Your task to perform on an android device: toggle javascript in the chrome app Image 0: 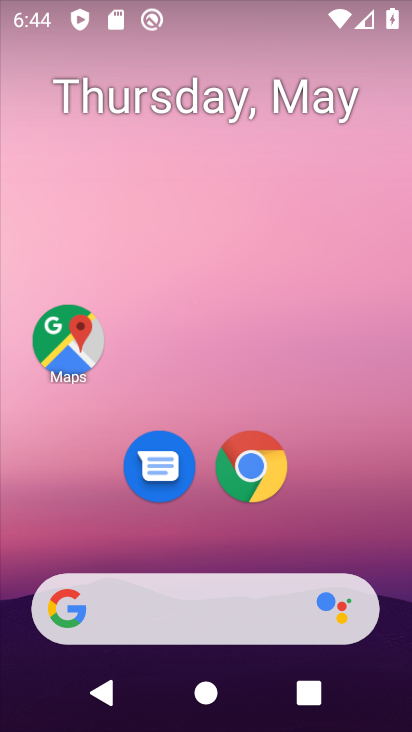
Step 0: click (257, 465)
Your task to perform on an android device: toggle javascript in the chrome app Image 1: 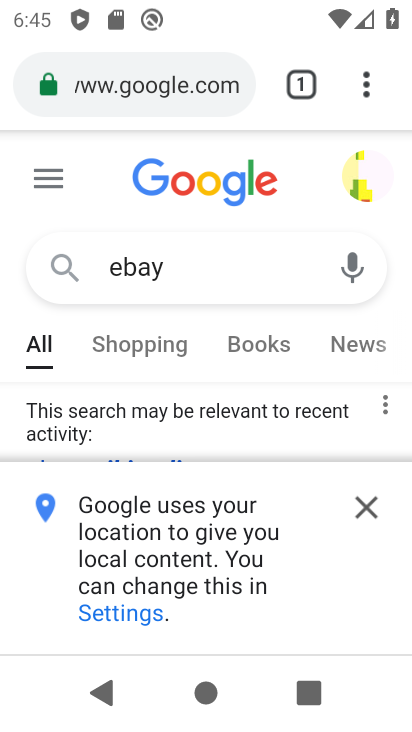
Step 1: click (367, 80)
Your task to perform on an android device: toggle javascript in the chrome app Image 2: 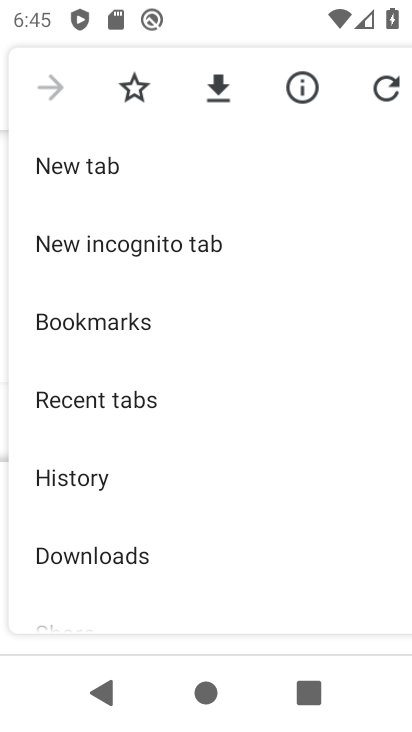
Step 2: drag from (214, 465) to (179, 222)
Your task to perform on an android device: toggle javascript in the chrome app Image 3: 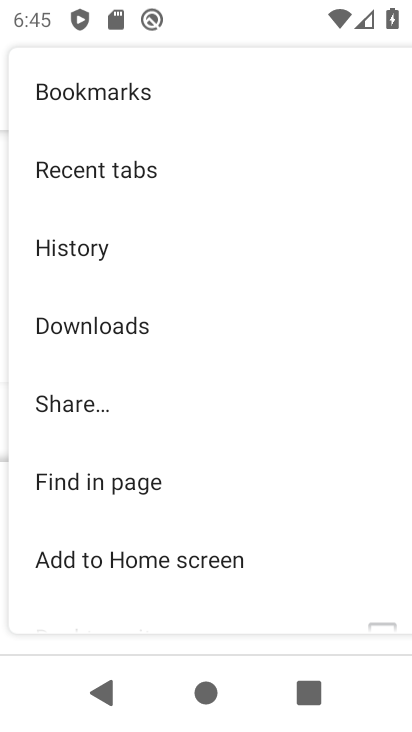
Step 3: drag from (225, 441) to (213, 245)
Your task to perform on an android device: toggle javascript in the chrome app Image 4: 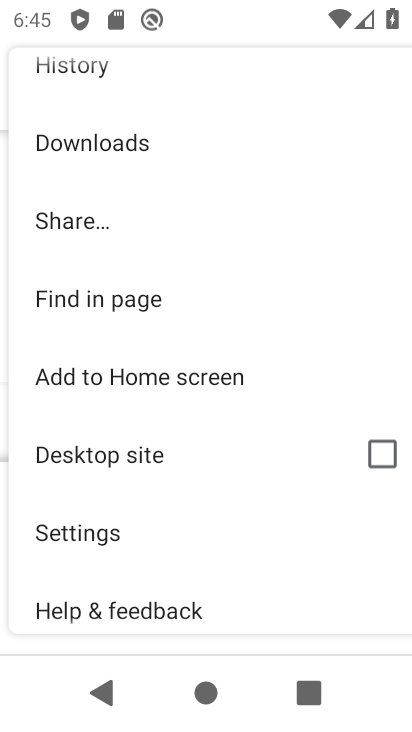
Step 4: click (89, 529)
Your task to perform on an android device: toggle javascript in the chrome app Image 5: 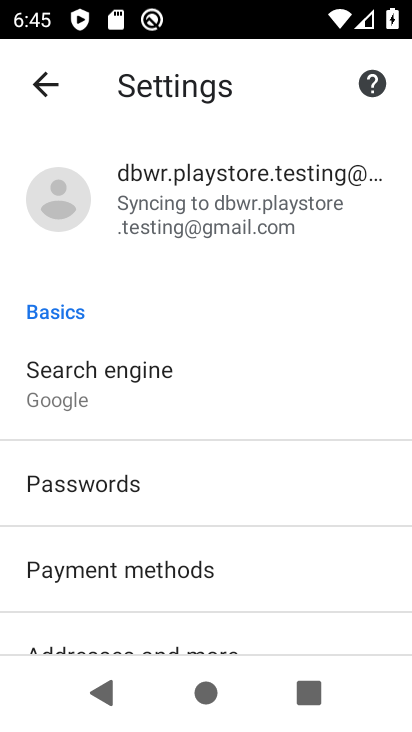
Step 5: drag from (293, 516) to (249, 224)
Your task to perform on an android device: toggle javascript in the chrome app Image 6: 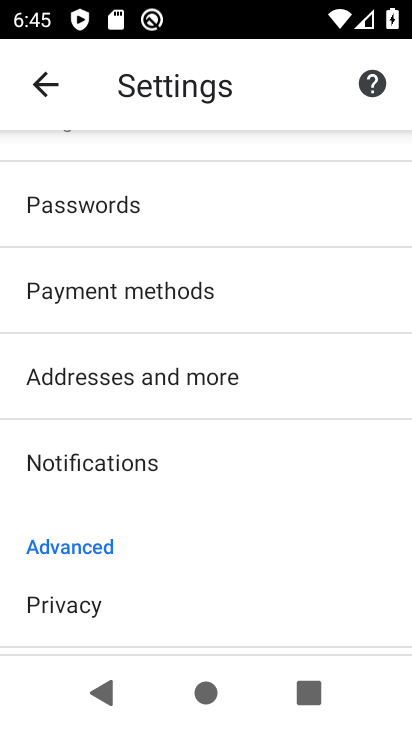
Step 6: drag from (229, 485) to (195, 184)
Your task to perform on an android device: toggle javascript in the chrome app Image 7: 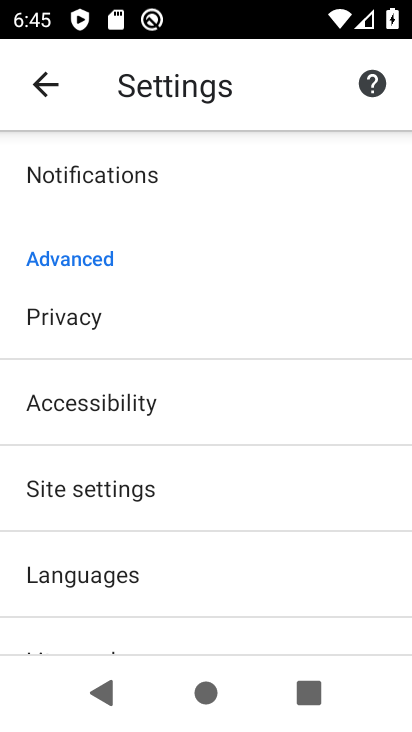
Step 7: click (123, 492)
Your task to perform on an android device: toggle javascript in the chrome app Image 8: 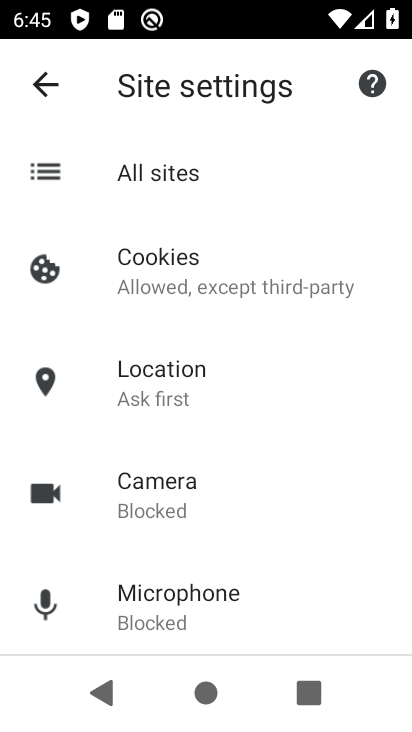
Step 8: drag from (262, 539) to (240, 254)
Your task to perform on an android device: toggle javascript in the chrome app Image 9: 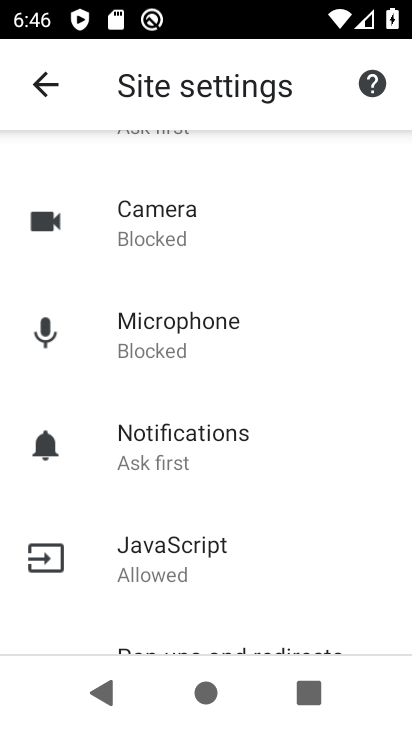
Step 9: click (157, 548)
Your task to perform on an android device: toggle javascript in the chrome app Image 10: 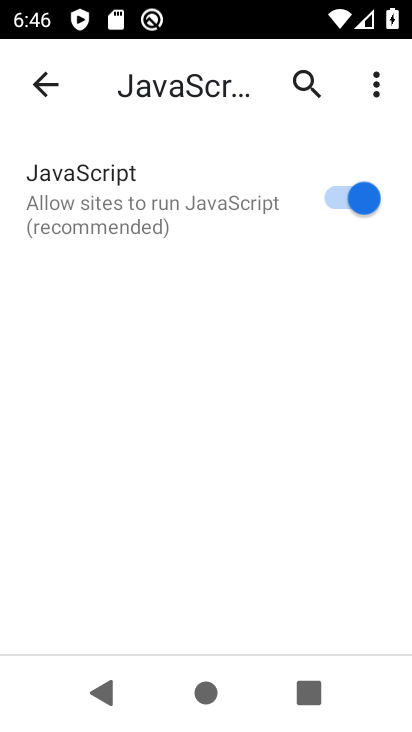
Step 10: click (370, 187)
Your task to perform on an android device: toggle javascript in the chrome app Image 11: 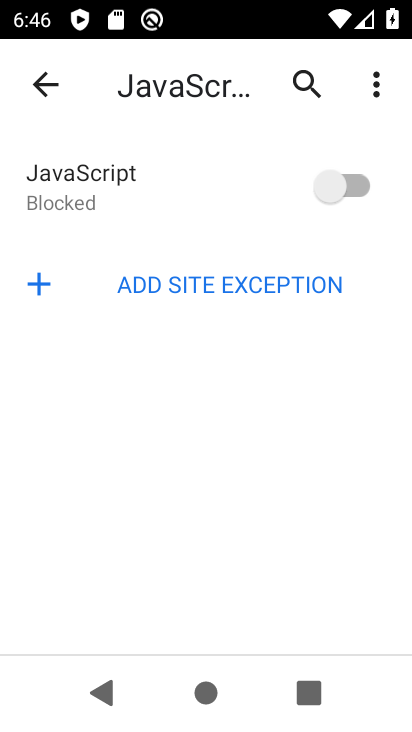
Step 11: task complete